Your task to perform on an android device: Search for Italian restaurants on Maps Image 0: 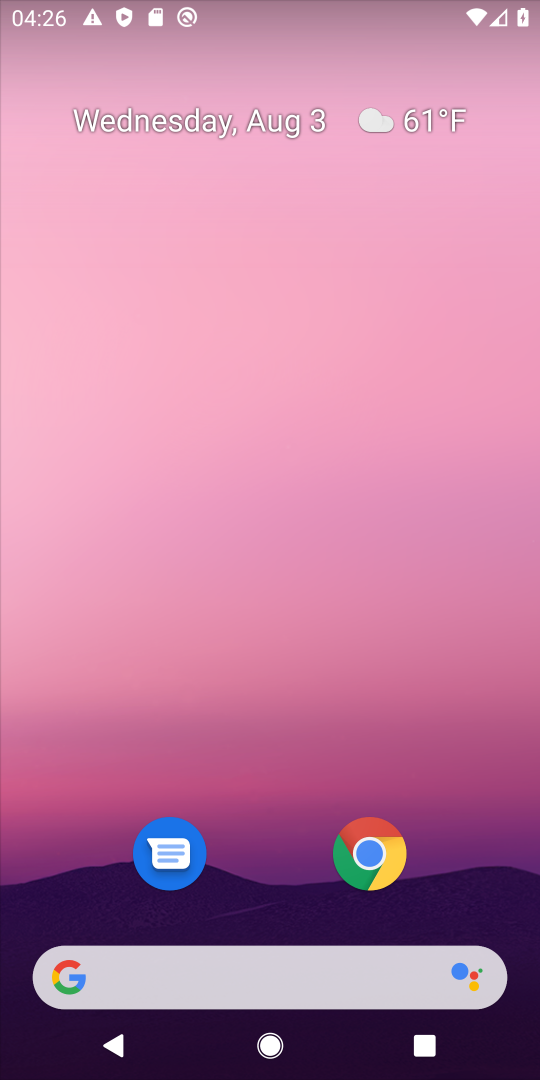
Step 0: drag from (253, 827) to (295, 119)
Your task to perform on an android device: Search for Italian restaurants on Maps Image 1: 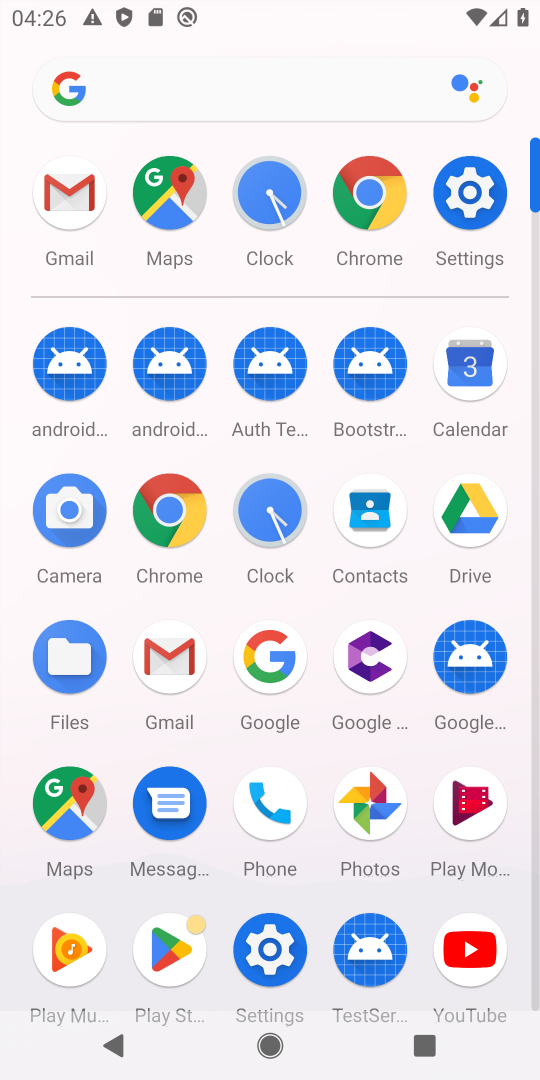
Step 1: click (61, 806)
Your task to perform on an android device: Search for Italian restaurants on Maps Image 2: 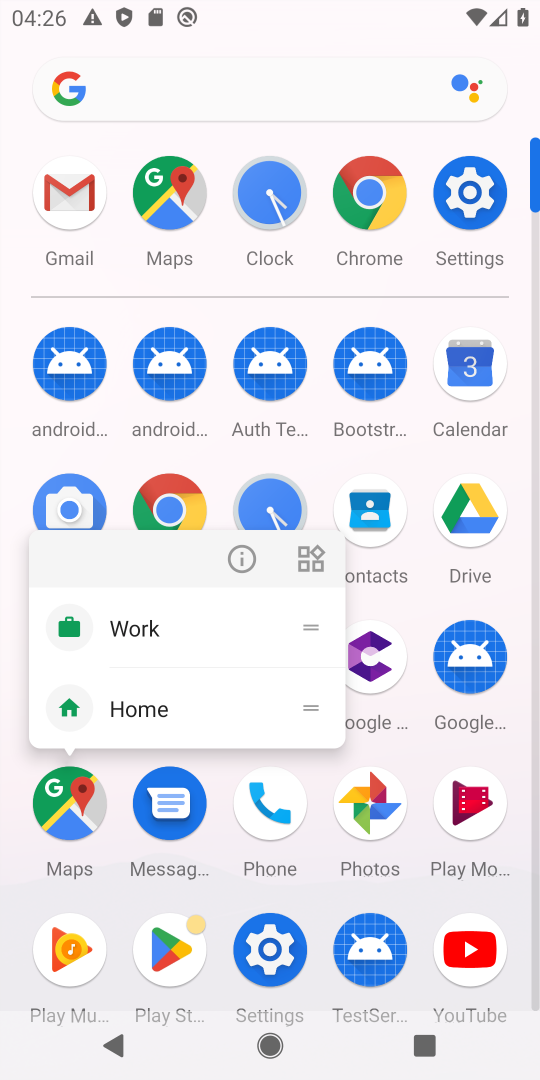
Step 2: click (61, 806)
Your task to perform on an android device: Search for Italian restaurants on Maps Image 3: 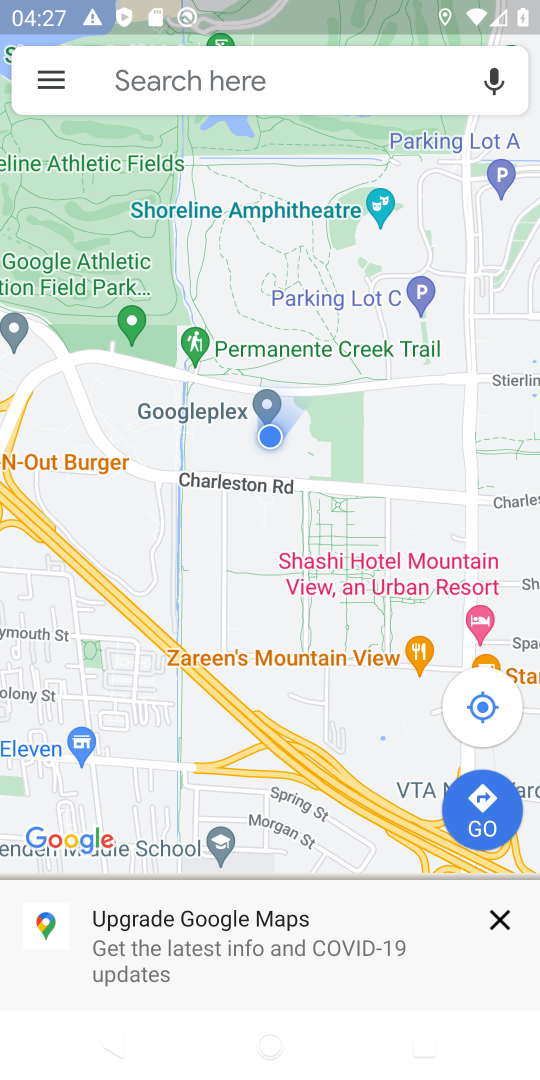
Step 3: click (286, 87)
Your task to perform on an android device: Search for Italian restaurants on Maps Image 4: 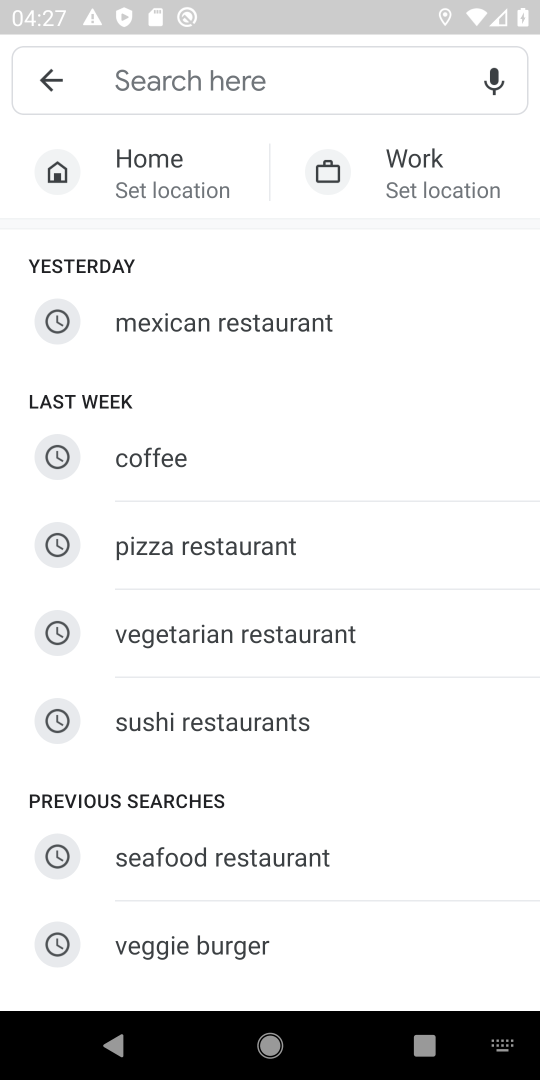
Step 4: type "Italian restaurants"
Your task to perform on an android device: Search for Italian restaurants on Maps Image 5: 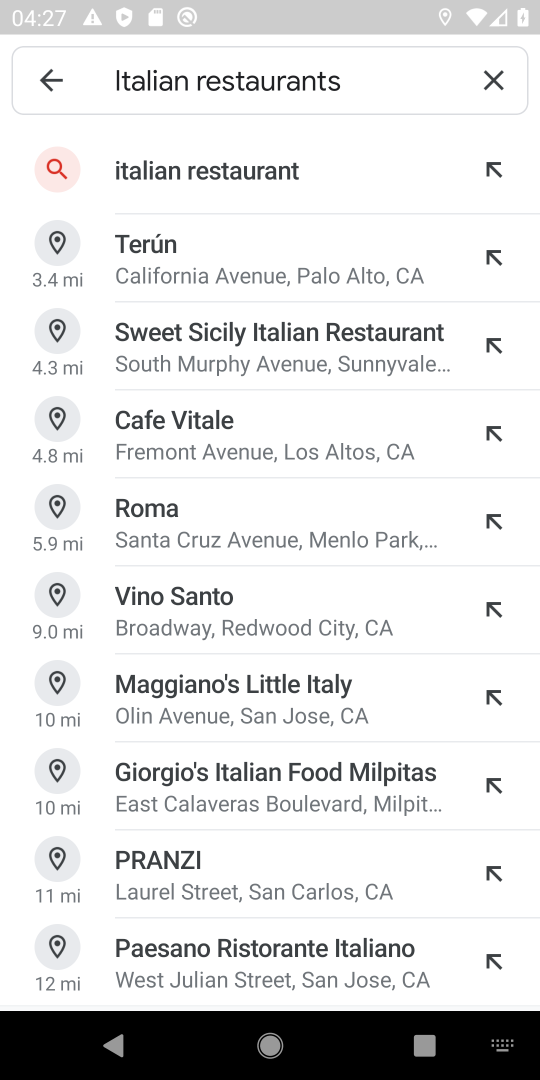
Step 5: click (202, 174)
Your task to perform on an android device: Search for Italian restaurants on Maps Image 6: 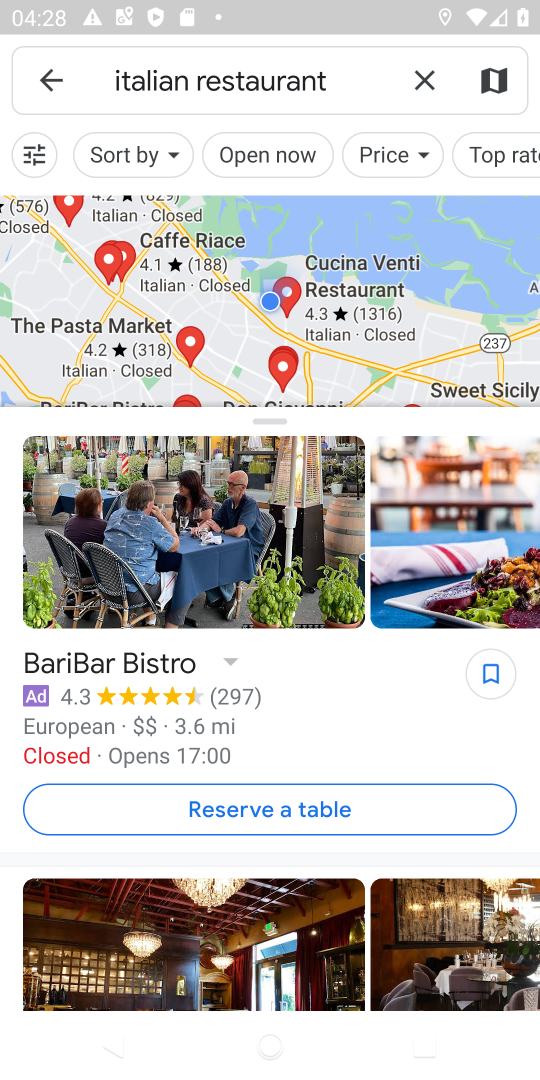
Step 6: task complete